Your task to perform on an android device: turn smart compose on in the gmail app Image 0: 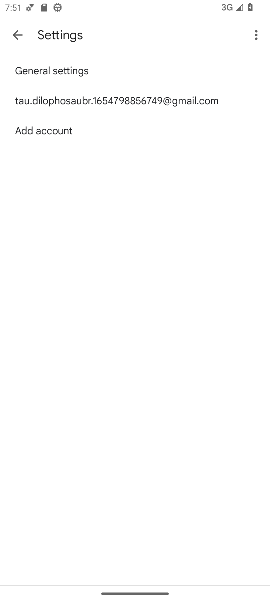
Step 0: press home button
Your task to perform on an android device: turn smart compose on in the gmail app Image 1: 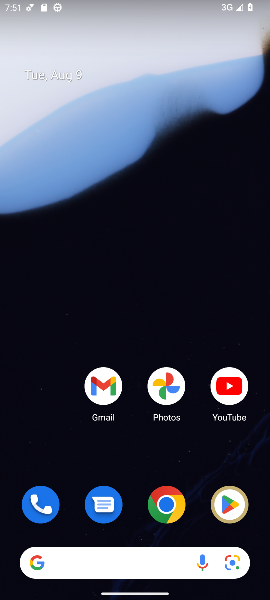
Step 1: drag from (190, 469) to (143, 194)
Your task to perform on an android device: turn smart compose on in the gmail app Image 2: 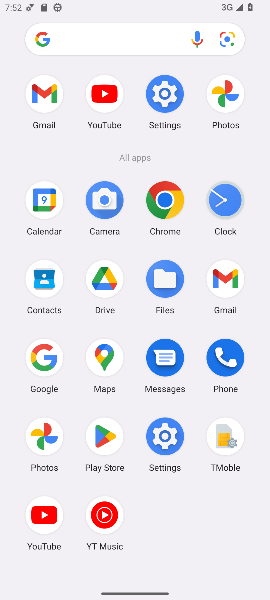
Step 2: click (57, 110)
Your task to perform on an android device: turn smart compose on in the gmail app Image 3: 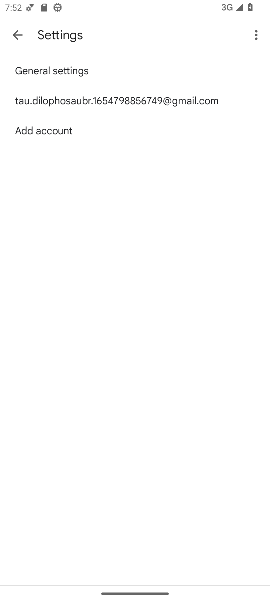
Step 3: click (72, 99)
Your task to perform on an android device: turn smart compose on in the gmail app Image 4: 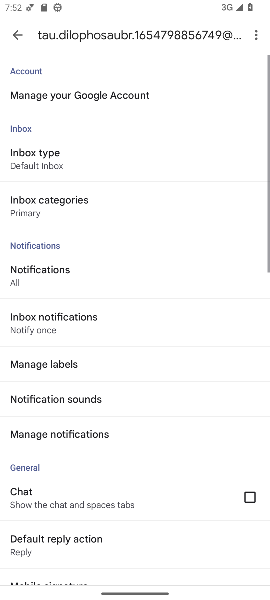
Step 4: task complete